Your task to perform on an android device: delete browsing data in the chrome app Image 0: 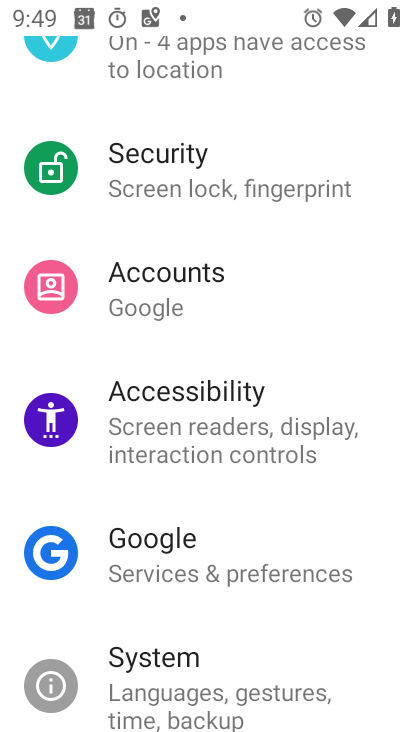
Step 0: press home button
Your task to perform on an android device: delete browsing data in the chrome app Image 1: 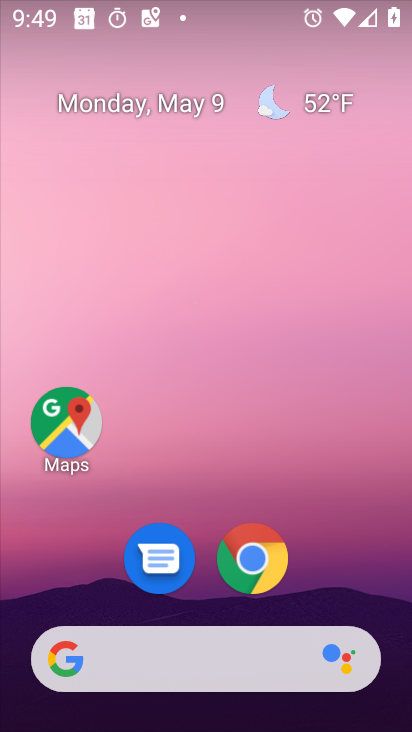
Step 1: click (250, 550)
Your task to perform on an android device: delete browsing data in the chrome app Image 2: 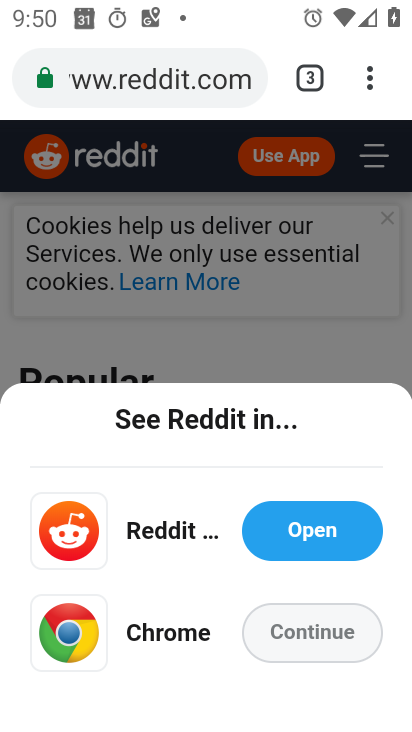
Step 2: click (355, 72)
Your task to perform on an android device: delete browsing data in the chrome app Image 3: 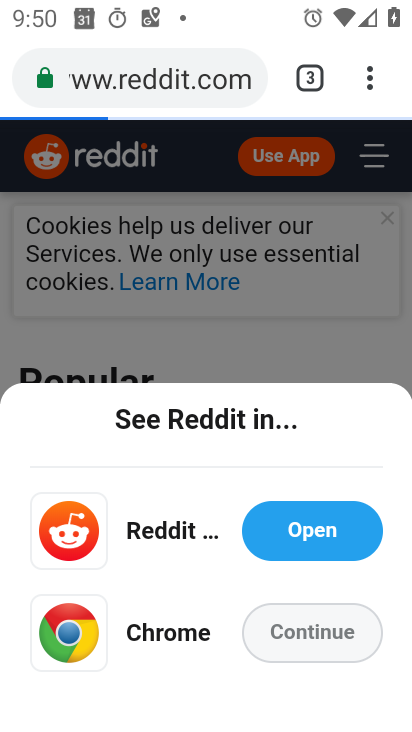
Step 3: drag from (374, 70) to (100, 434)
Your task to perform on an android device: delete browsing data in the chrome app Image 4: 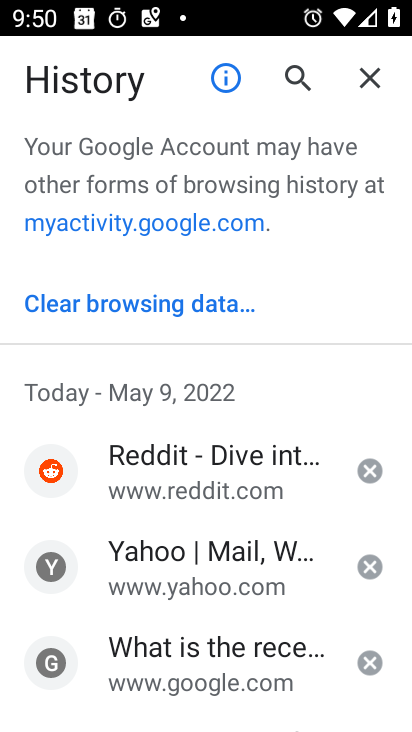
Step 4: click (125, 313)
Your task to perform on an android device: delete browsing data in the chrome app Image 5: 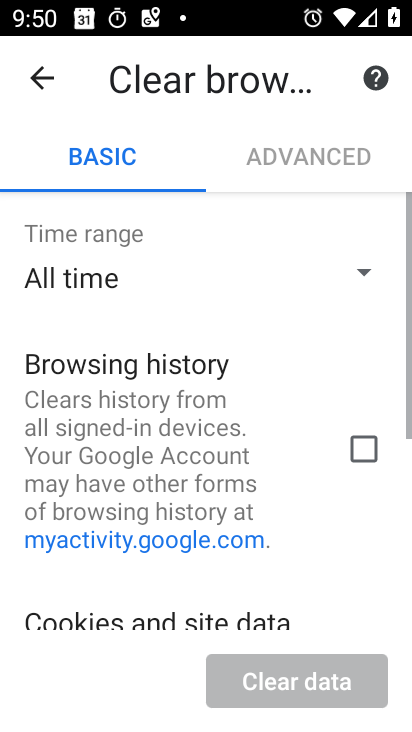
Step 5: click (349, 476)
Your task to perform on an android device: delete browsing data in the chrome app Image 6: 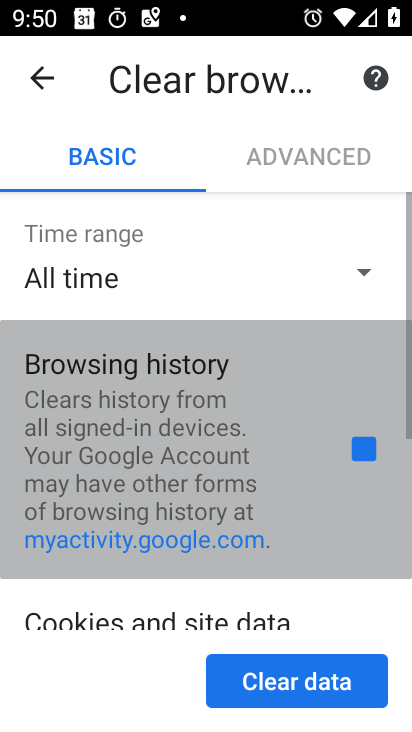
Step 6: drag from (210, 614) to (315, 151)
Your task to perform on an android device: delete browsing data in the chrome app Image 7: 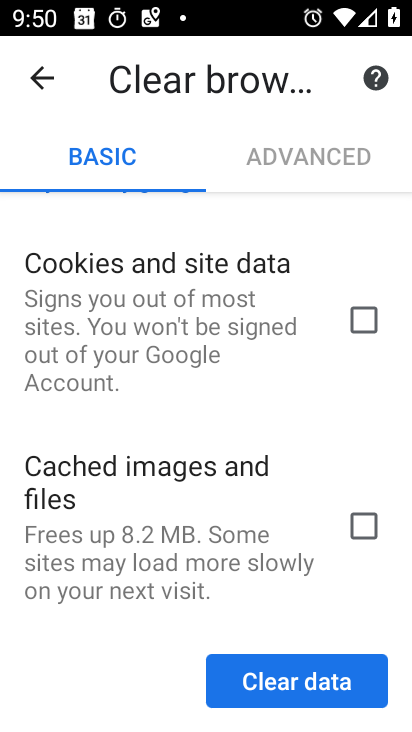
Step 7: click (365, 301)
Your task to perform on an android device: delete browsing data in the chrome app Image 8: 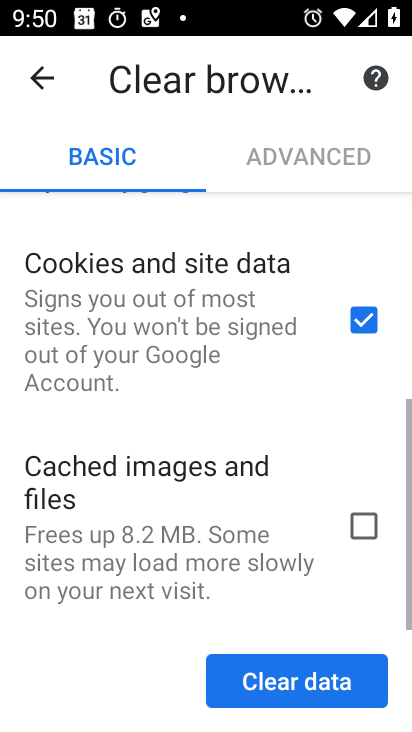
Step 8: click (379, 508)
Your task to perform on an android device: delete browsing data in the chrome app Image 9: 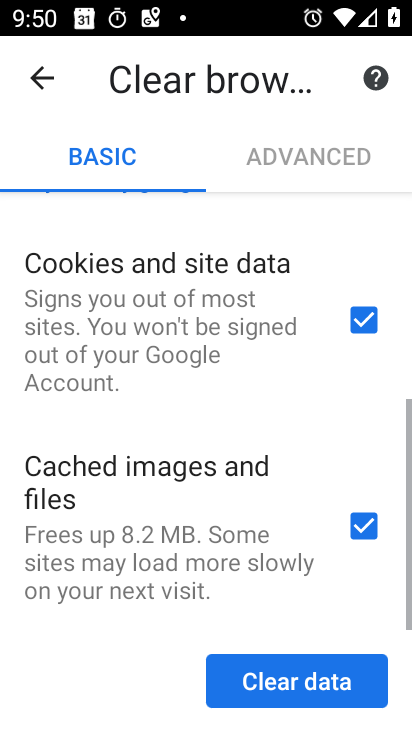
Step 9: click (271, 686)
Your task to perform on an android device: delete browsing data in the chrome app Image 10: 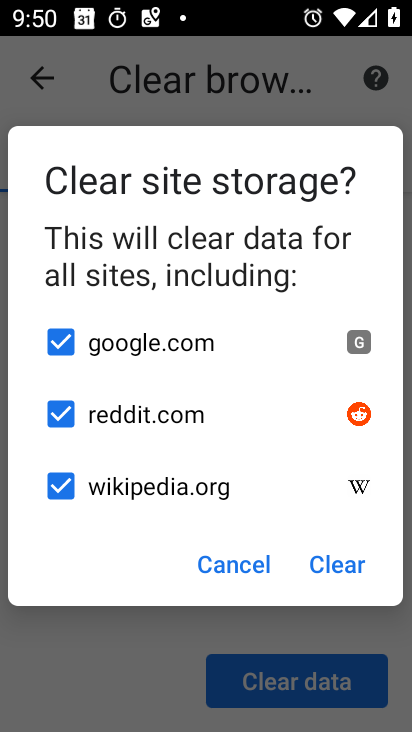
Step 10: click (349, 557)
Your task to perform on an android device: delete browsing data in the chrome app Image 11: 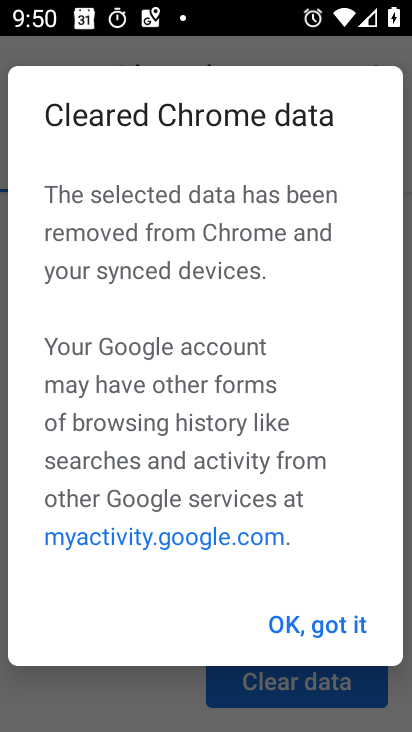
Step 11: click (336, 620)
Your task to perform on an android device: delete browsing data in the chrome app Image 12: 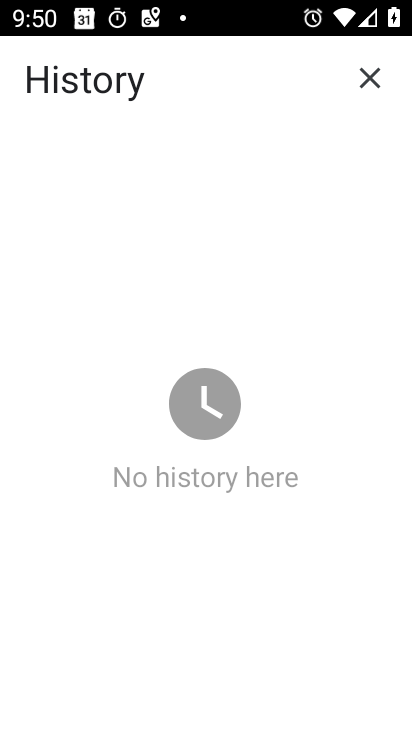
Step 12: task complete